Your task to perform on an android device: Go to display settings Image 0: 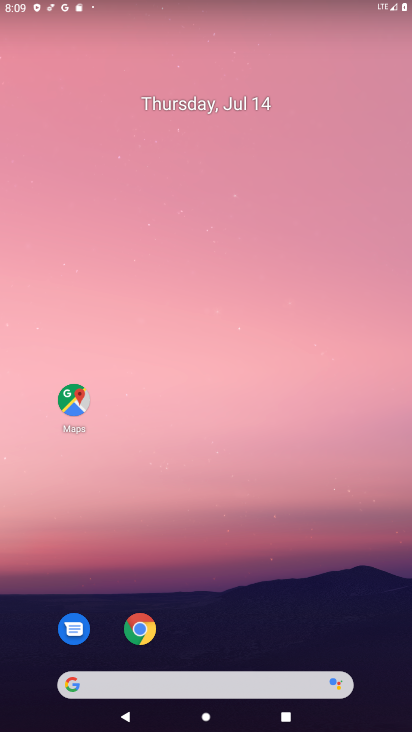
Step 0: task impossible